Your task to perform on an android device: Open maps Image 0: 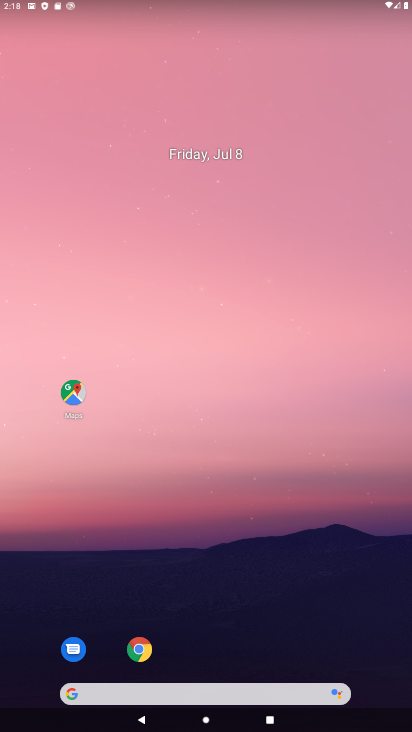
Step 0: drag from (378, 673) to (367, 159)
Your task to perform on an android device: Open maps Image 1: 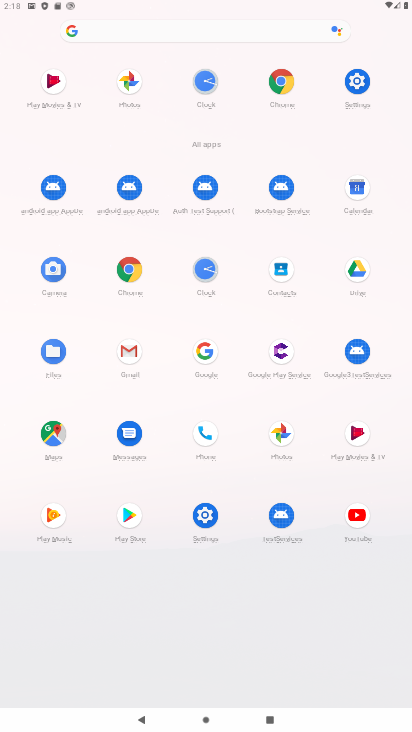
Step 1: click (55, 429)
Your task to perform on an android device: Open maps Image 2: 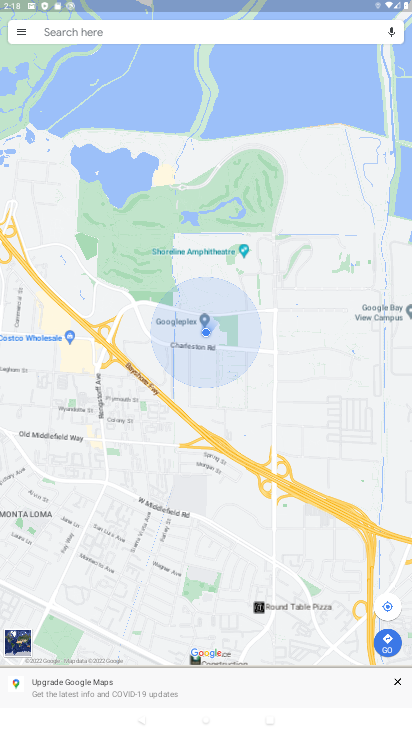
Step 2: task complete